Your task to perform on an android device: move a message to another label in the gmail app Image 0: 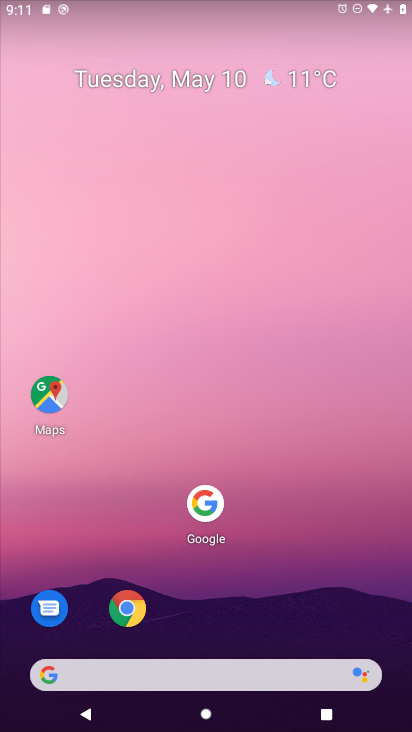
Step 0: drag from (261, 683) to (401, 416)
Your task to perform on an android device: move a message to another label in the gmail app Image 1: 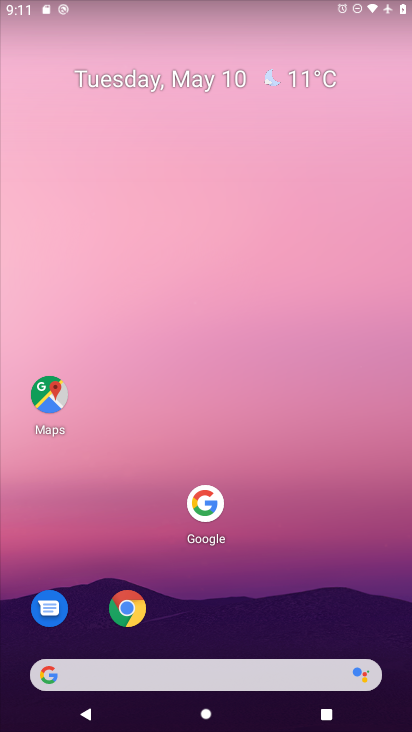
Step 1: drag from (210, 673) to (406, 469)
Your task to perform on an android device: move a message to another label in the gmail app Image 2: 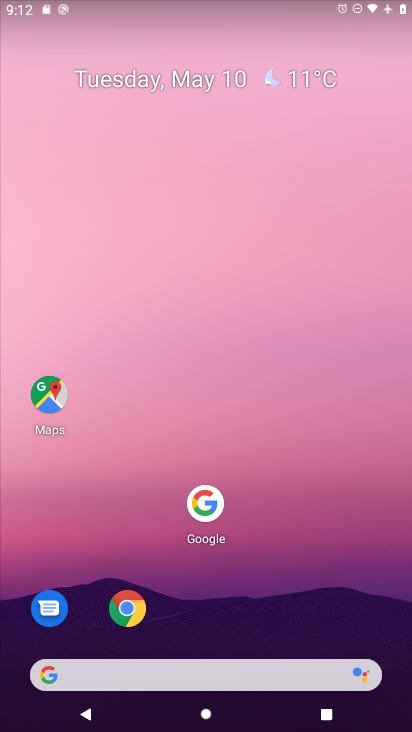
Step 2: drag from (210, 663) to (363, 203)
Your task to perform on an android device: move a message to another label in the gmail app Image 3: 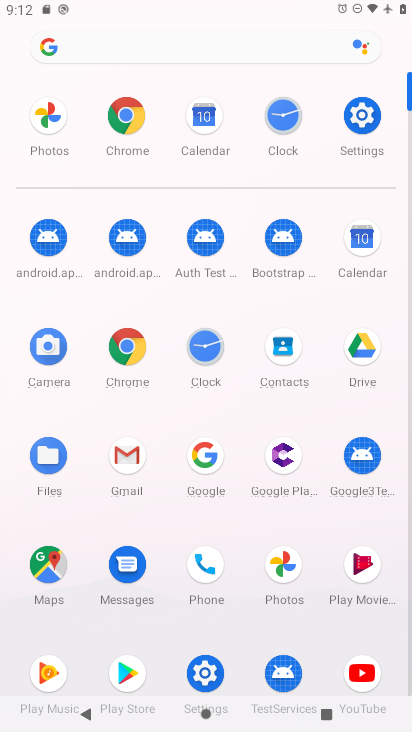
Step 3: click (133, 461)
Your task to perform on an android device: move a message to another label in the gmail app Image 4: 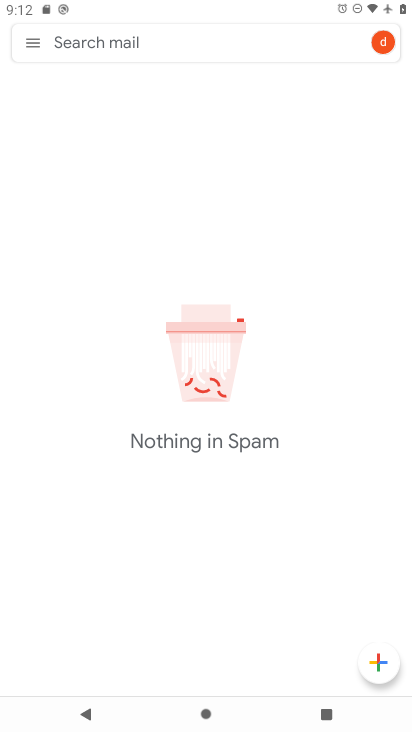
Step 4: task complete